Your task to perform on an android device: What's on the menu at Domino's? Image 0: 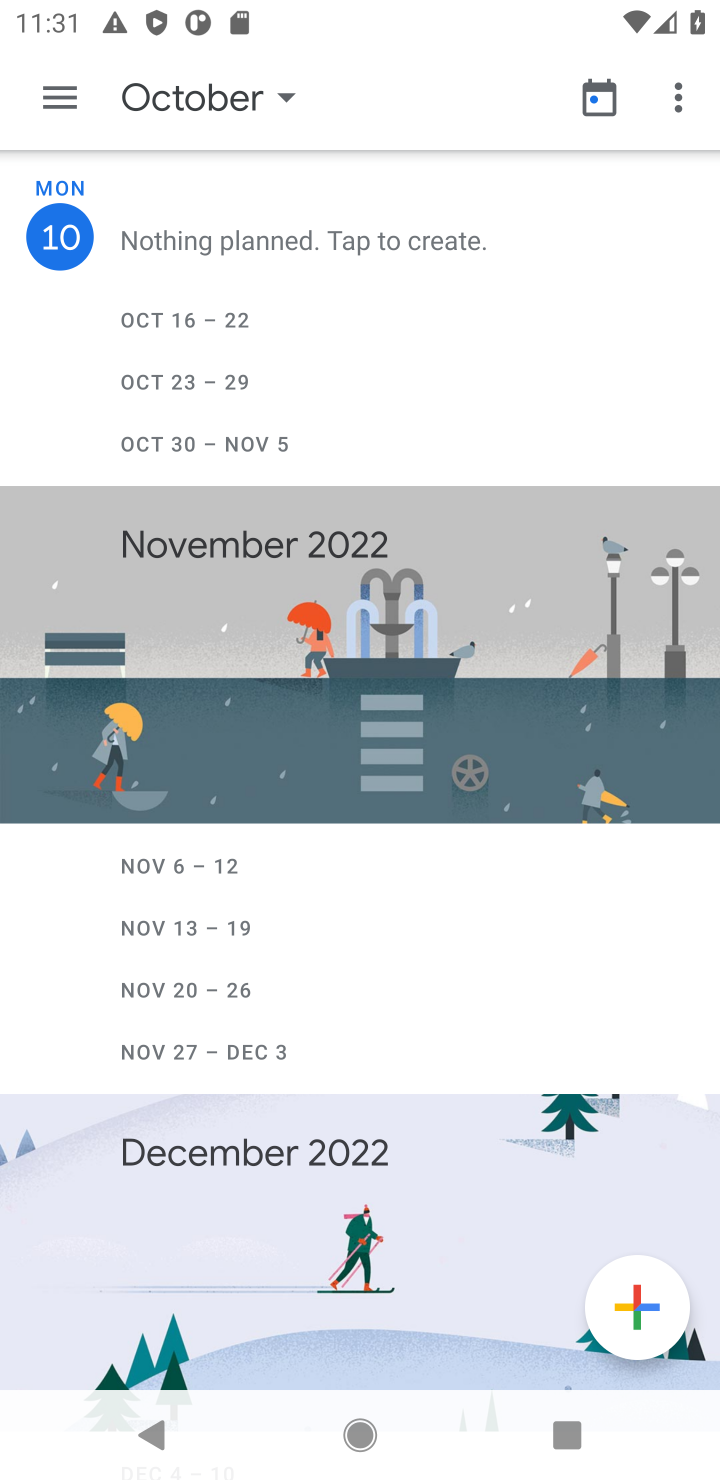
Step 0: press home button
Your task to perform on an android device: What's on the menu at Domino's? Image 1: 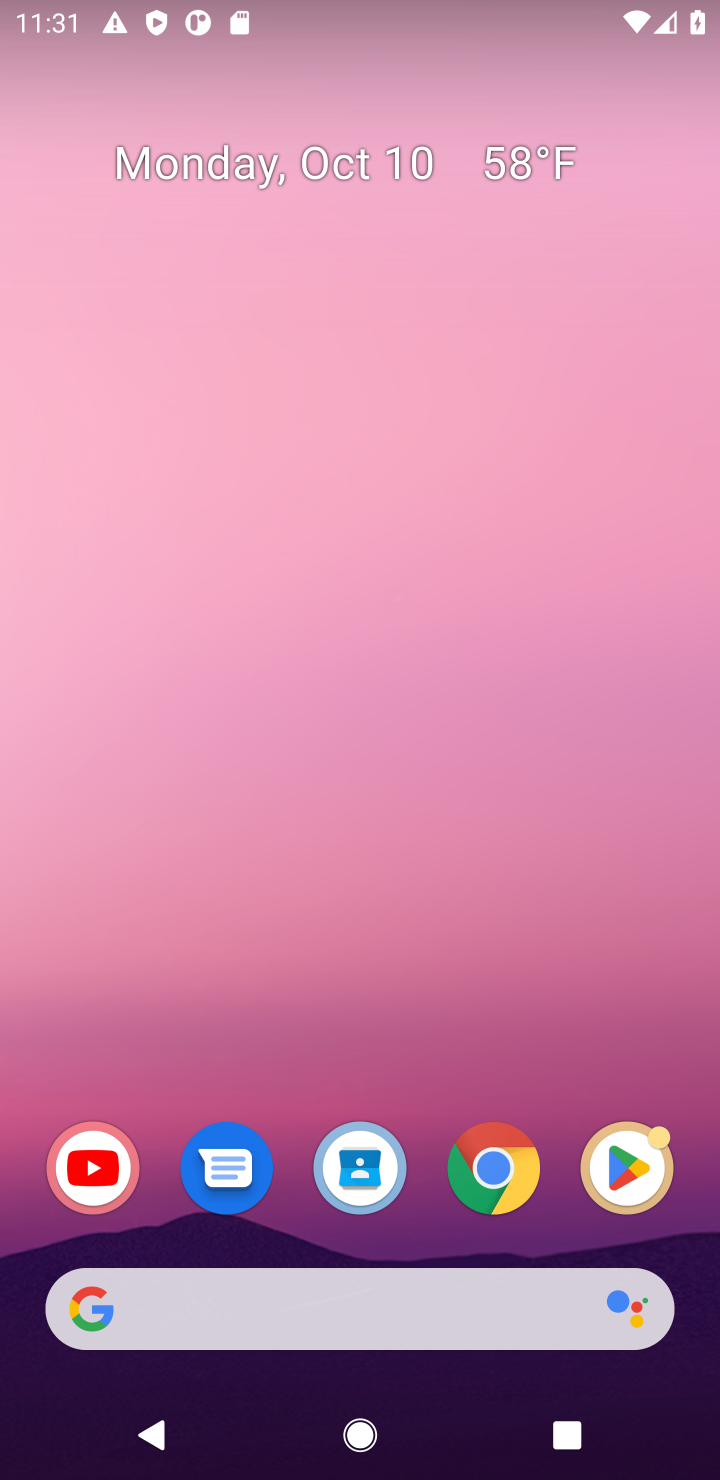
Step 1: click (377, 1280)
Your task to perform on an android device: What's on the menu at Domino's? Image 2: 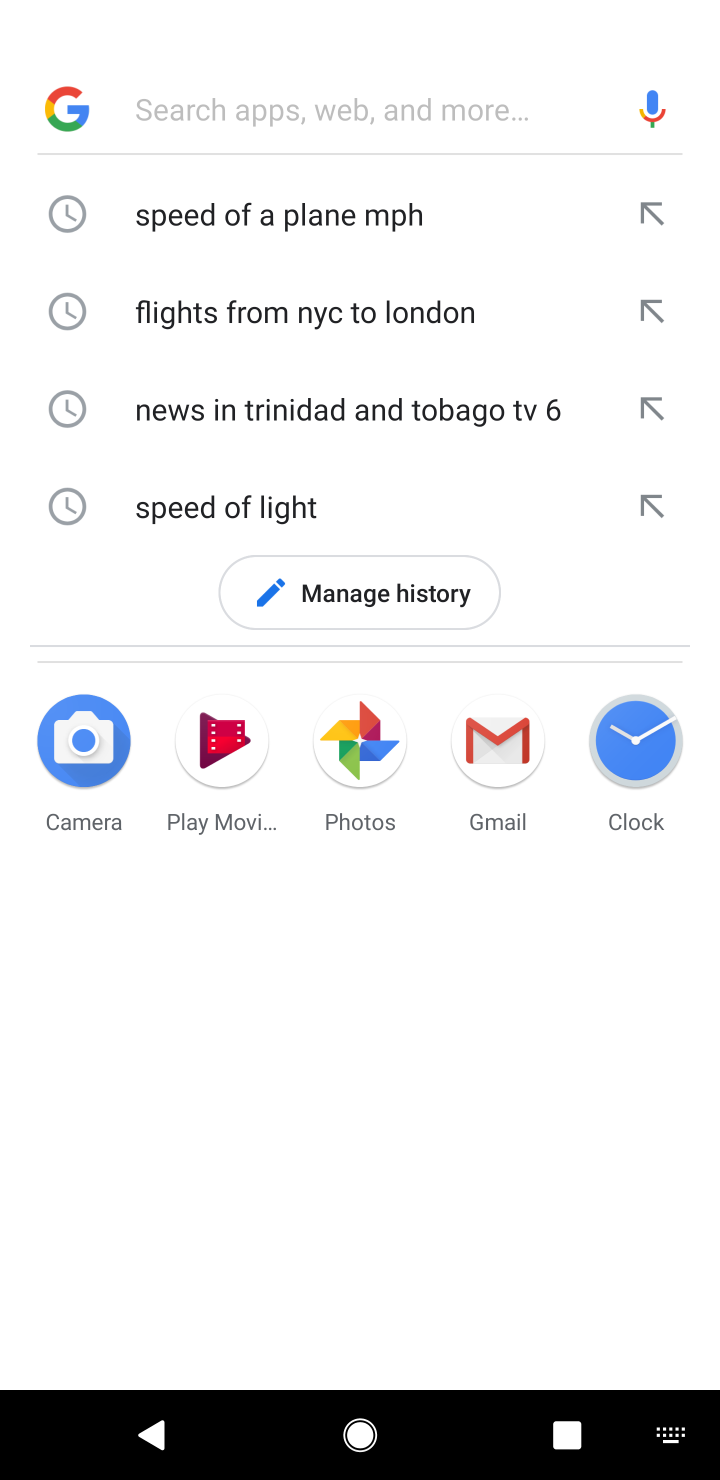
Step 2: type "menu at Domino's"
Your task to perform on an android device: What's on the menu at Domino's? Image 3: 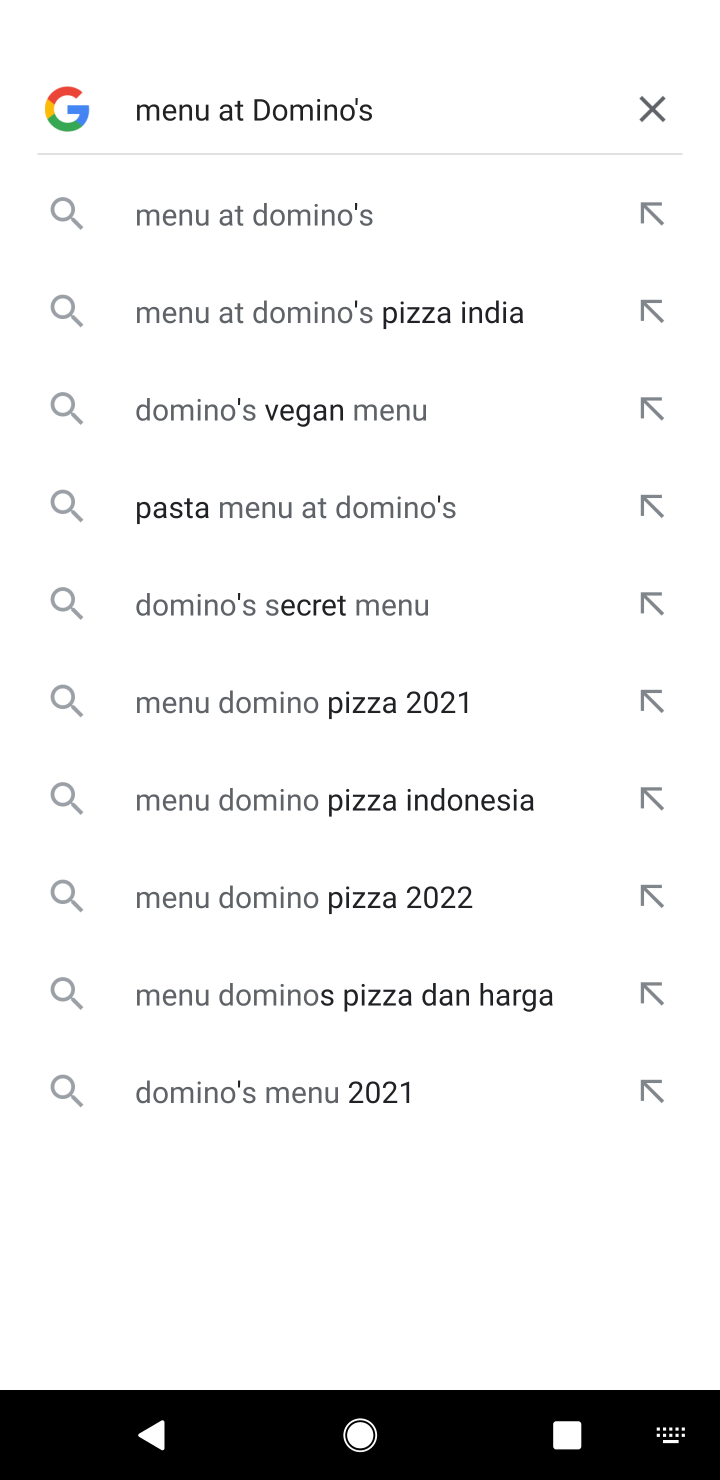
Step 3: click (234, 230)
Your task to perform on an android device: What's on the menu at Domino's? Image 4: 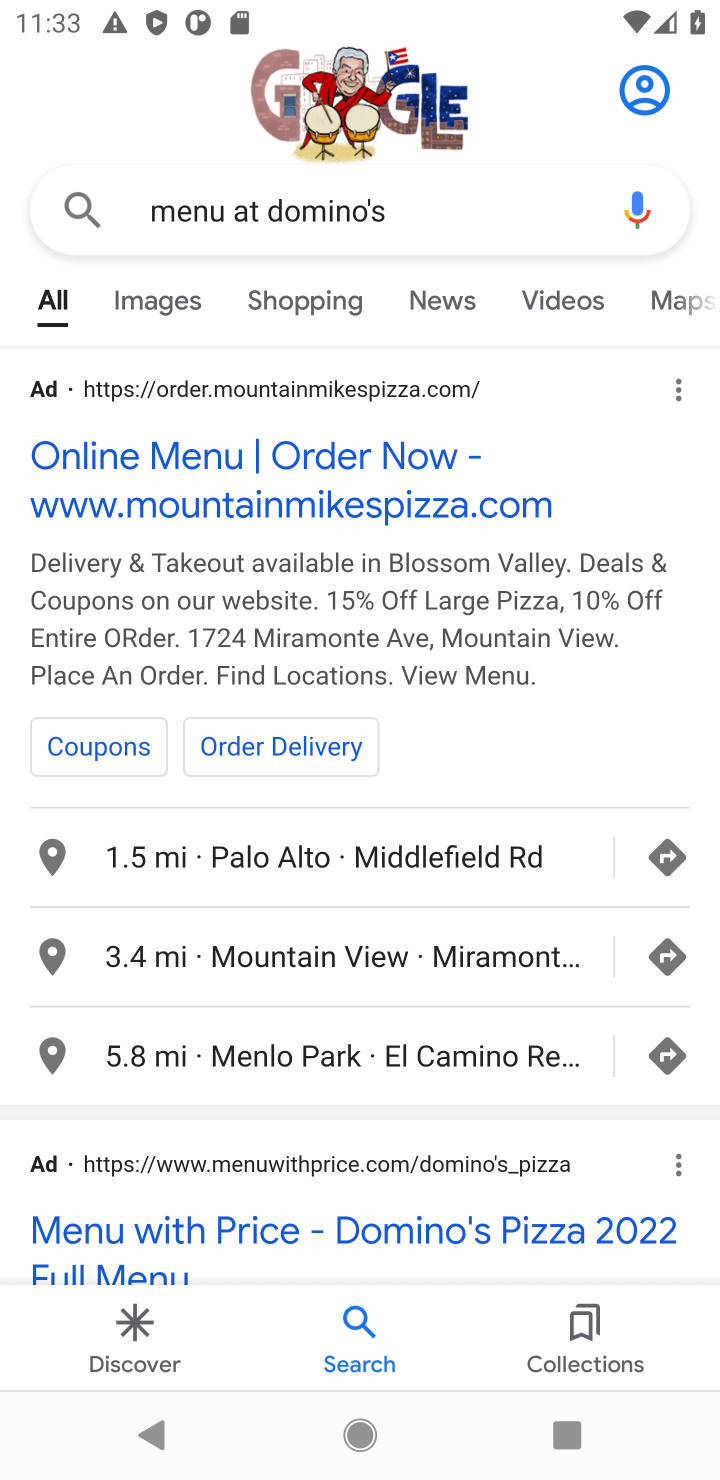
Step 4: drag from (399, 1099) to (445, 306)
Your task to perform on an android device: What's on the menu at Domino's? Image 5: 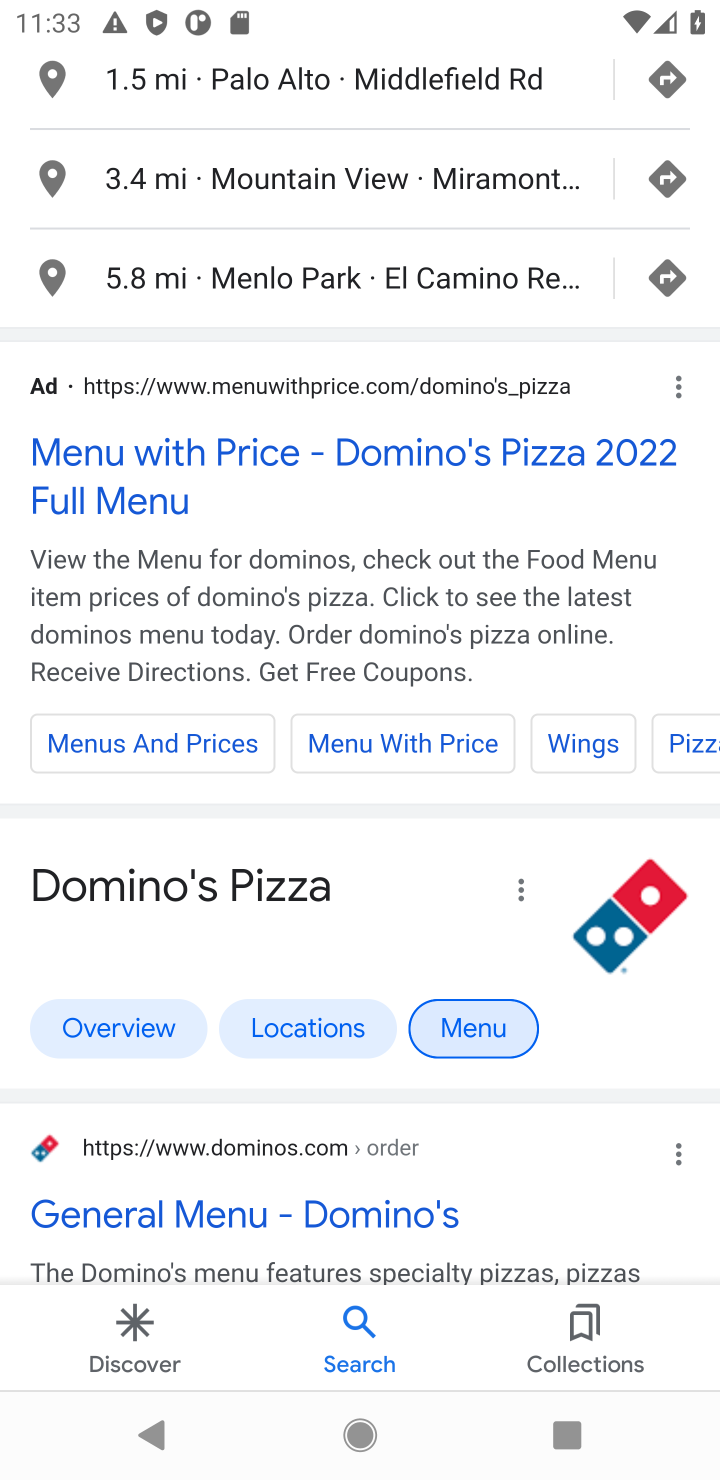
Step 5: drag from (391, 457) to (404, 371)
Your task to perform on an android device: What's on the menu at Domino's? Image 6: 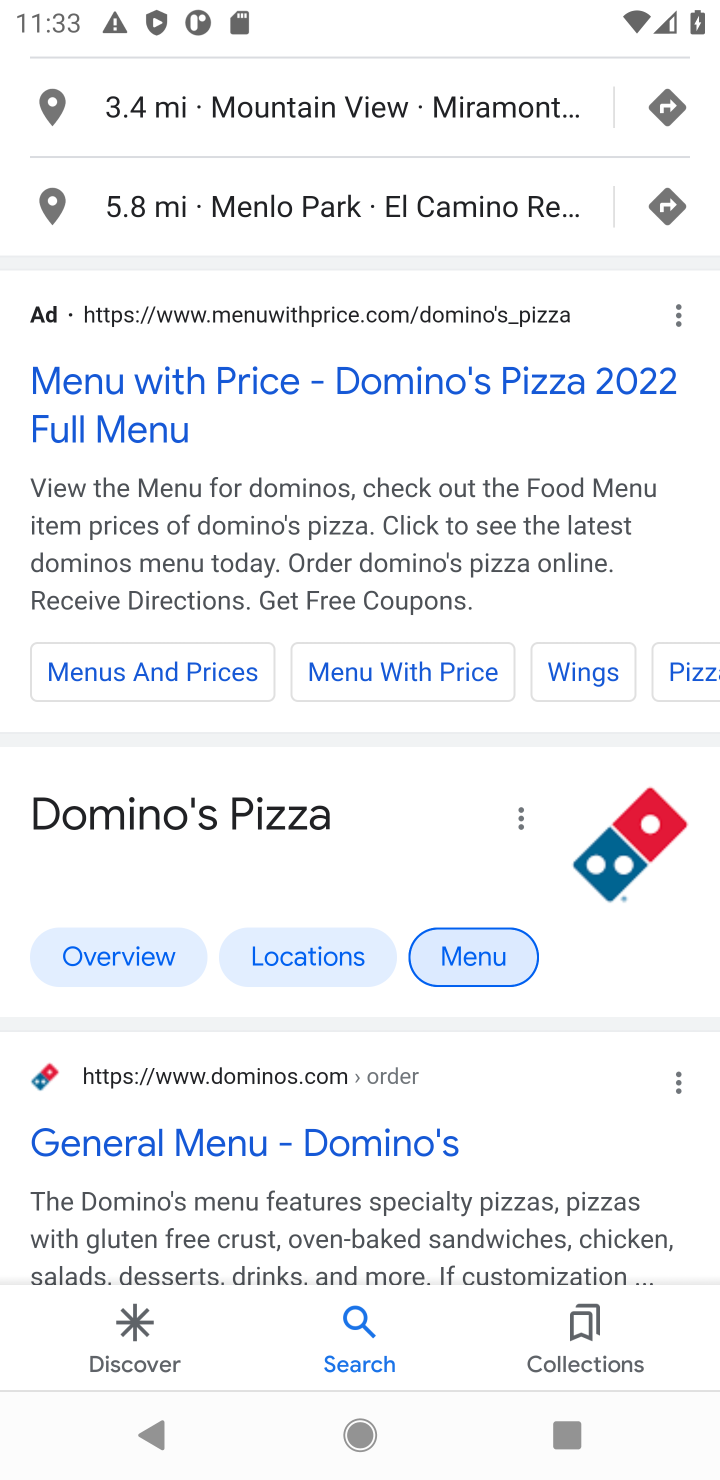
Step 6: drag from (419, 1021) to (460, 526)
Your task to perform on an android device: What's on the menu at Domino's? Image 7: 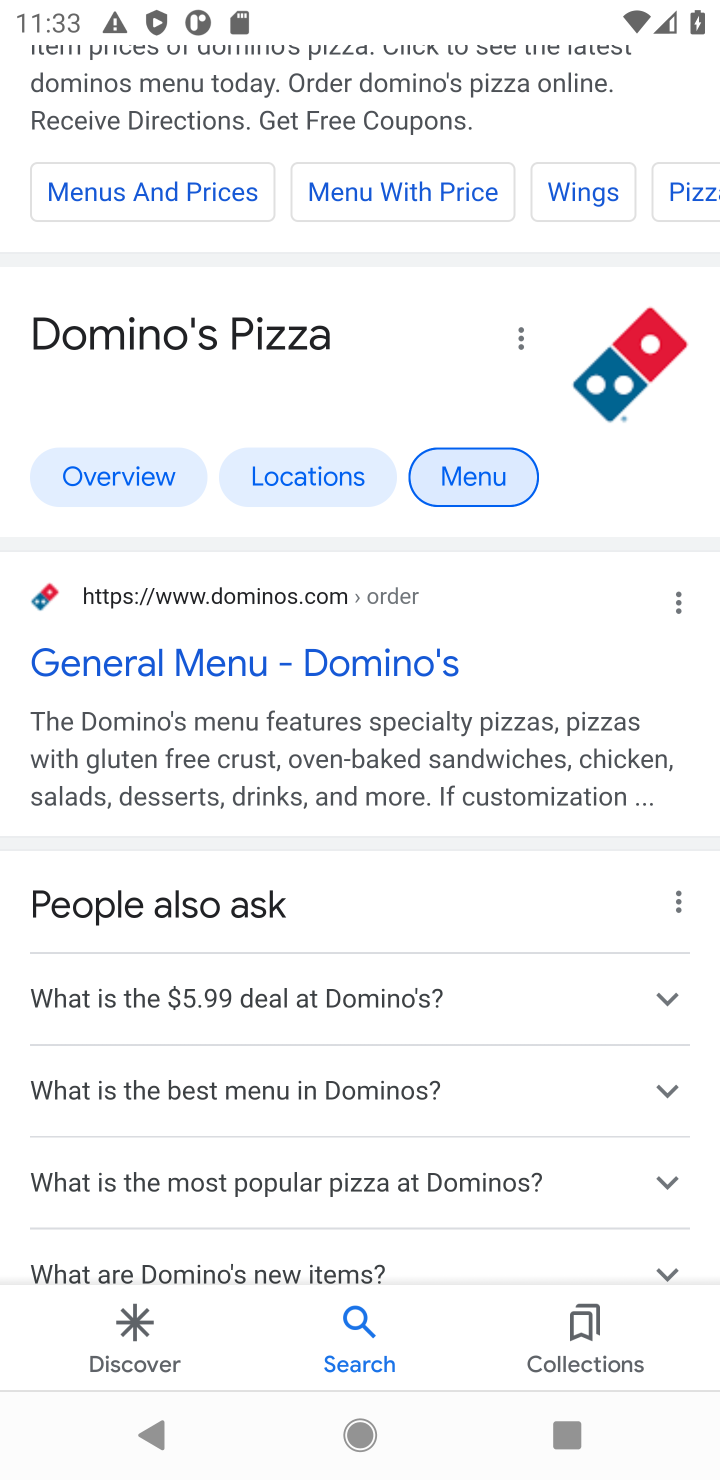
Step 7: drag from (463, 833) to (492, 471)
Your task to perform on an android device: What's on the menu at Domino's? Image 8: 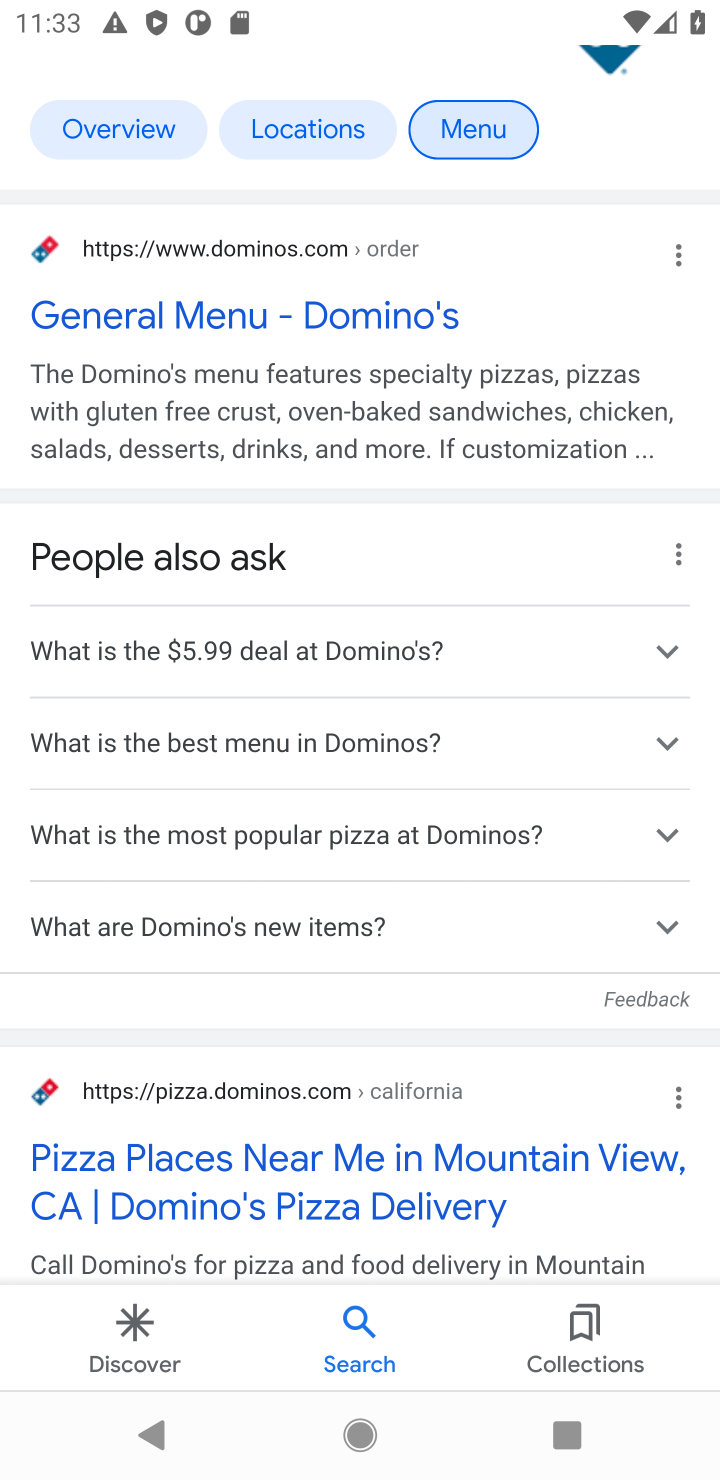
Step 8: click (258, 323)
Your task to perform on an android device: What's on the menu at Domino's? Image 9: 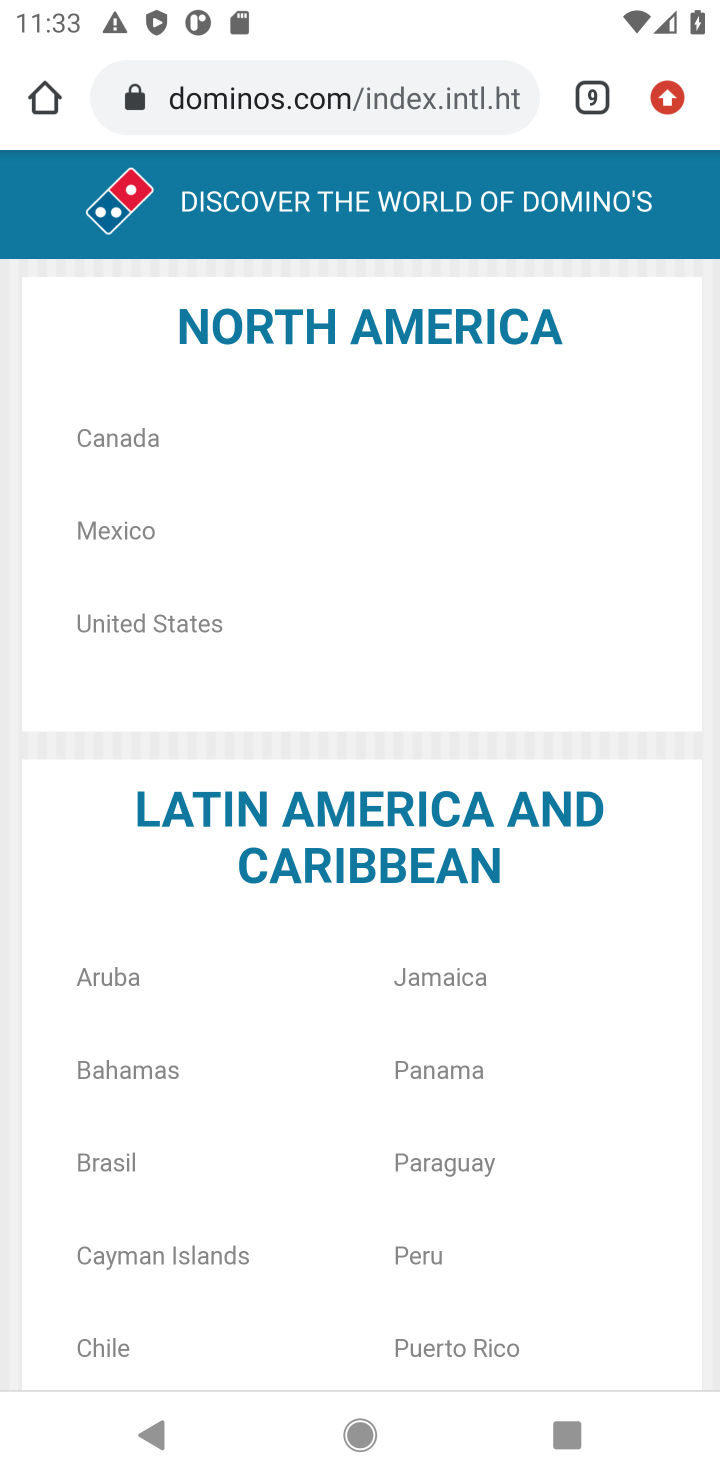
Step 9: task complete